Your task to perform on an android device: remove spam from my inbox in the gmail app Image 0: 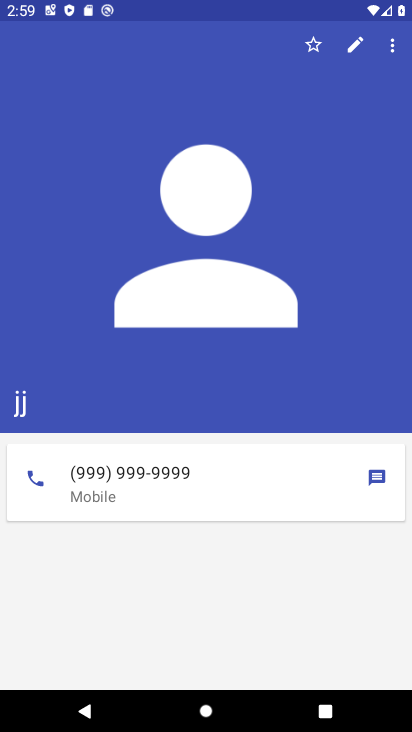
Step 0: press home button
Your task to perform on an android device: remove spam from my inbox in the gmail app Image 1: 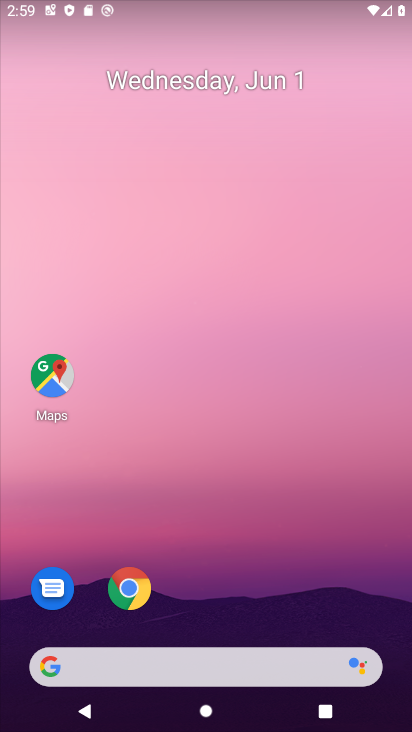
Step 1: drag from (322, 544) to (279, 51)
Your task to perform on an android device: remove spam from my inbox in the gmail app Image 2: 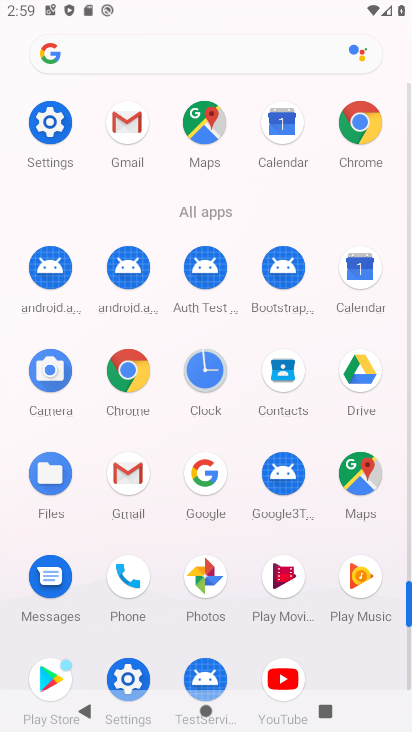
Step 2: click (130, 140)
Your task to perform on an android device: remove spam from my inbox in the gmail app Image 3: 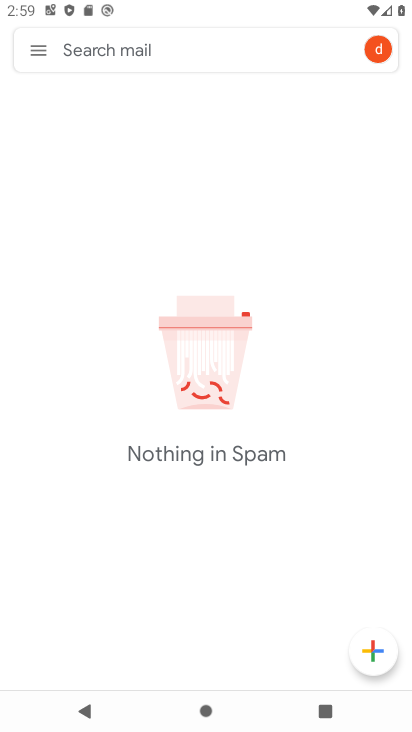
Step 3: click (32, 46)
Your task to perform on an android device: remove spam from my inbox in the gmail app Image 4: 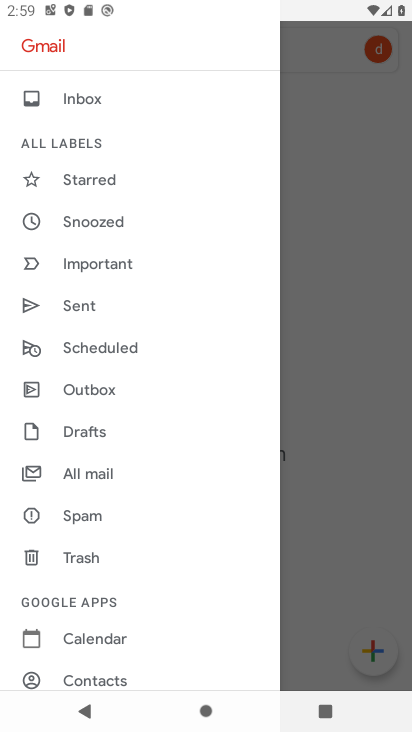
Step 4: click (107, 509)
Your task to perform on an android device: remove spam from my inbox in the gmail app Image 5: 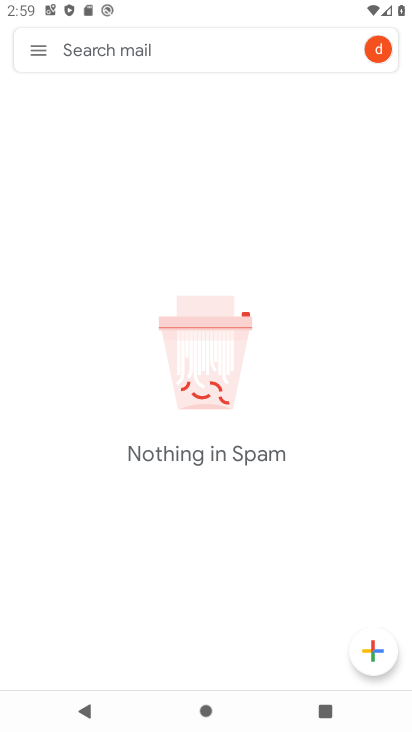
Step 5: task complete